Your task to perform on an android device: Open sound settings Image 0: 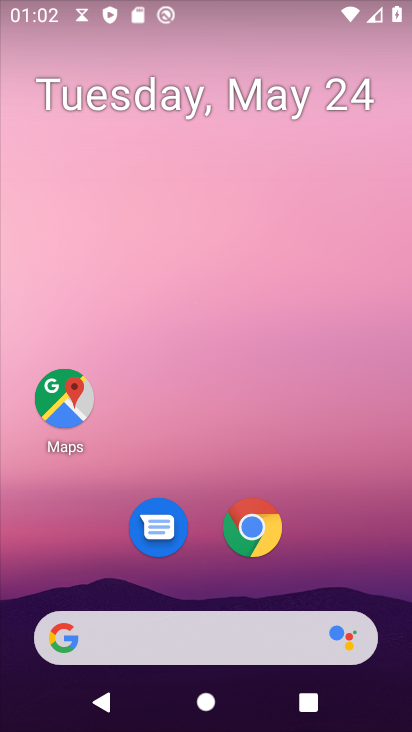
Step 0: press home button
Your task to perform on an android device: Open sound settings Image 1: 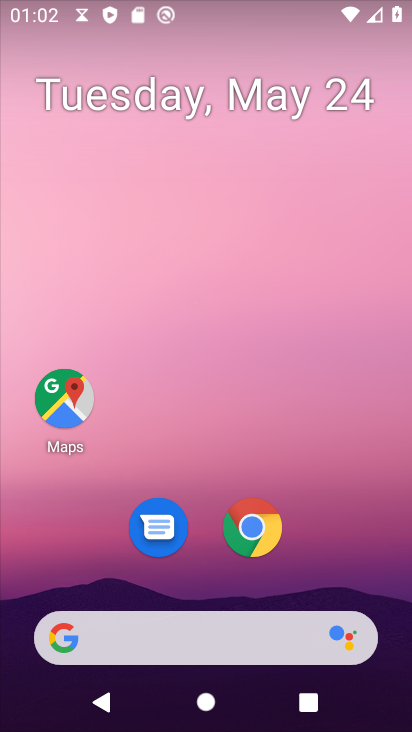
Step 1: drag from (146, 651) to (335, 90)
Your task to perform on an android device: Open sound settings Image 2: 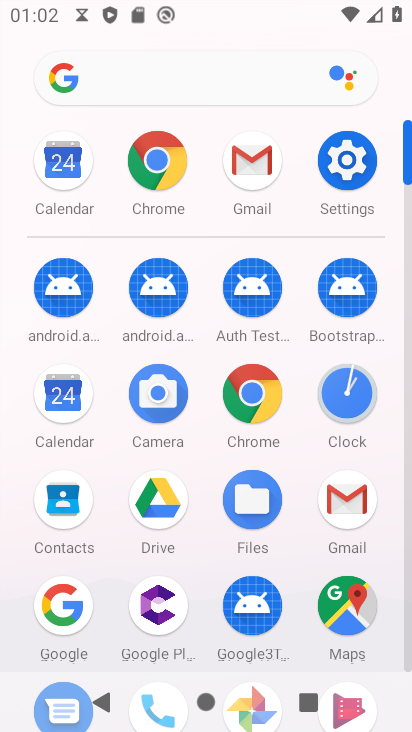
Step 2: click (359, 167)
Your task to perform on an android device: Open sound settings Image 3: 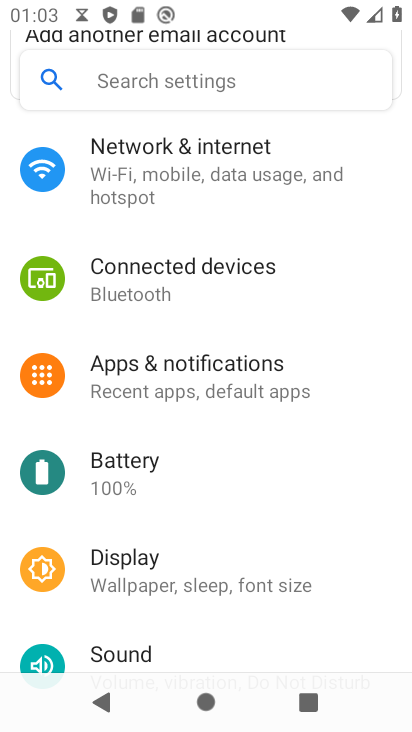
Step 3: drag from (205, 570) to (251, 322)
Your task to perform on an android device: Open sound settings Image 4: 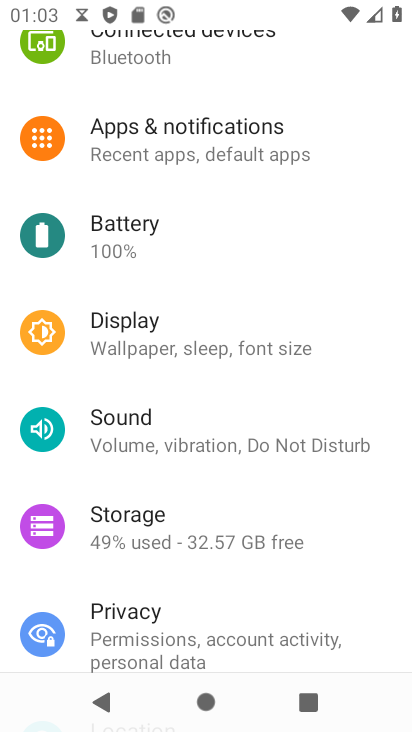
Step 4: click (140, 433)
Your task to perform on an android device: Open sound settings Image 5: 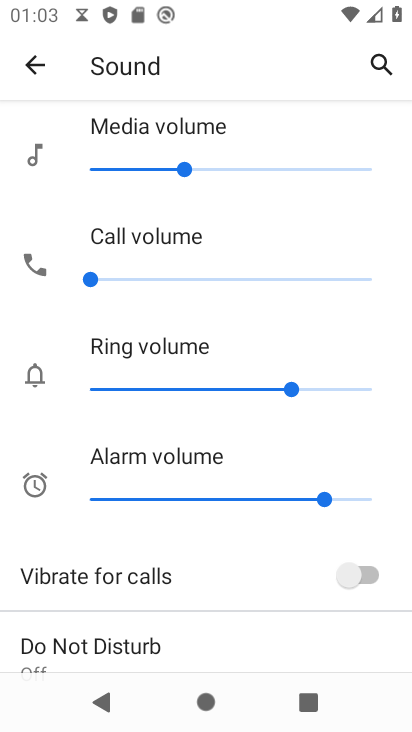
Step 5: task complete